Your task to perform on an android device: Open Chrome and go to the settings page Image 0: 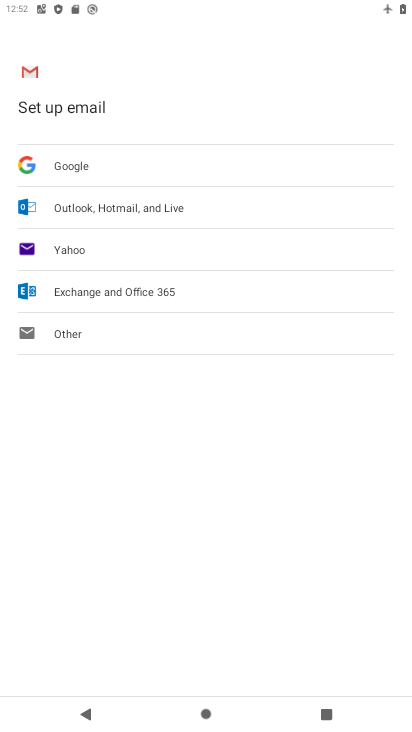
Step 0: press home button
Your task to perform on an android device: Open Chrome and go to the settings page Image 1: 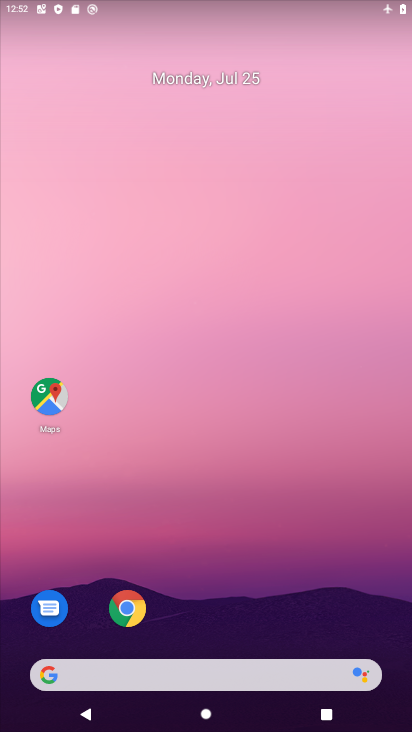
Step 1: click (130, 607)
Your task to perform on an android device: Open Chrome and go to the settings page Image 2: 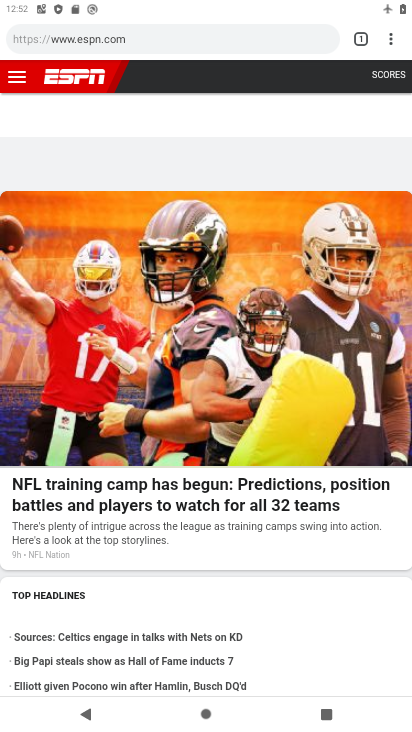
Step 2: task complete